Your task to perform on an android device: change the clock display to analog Image 0: 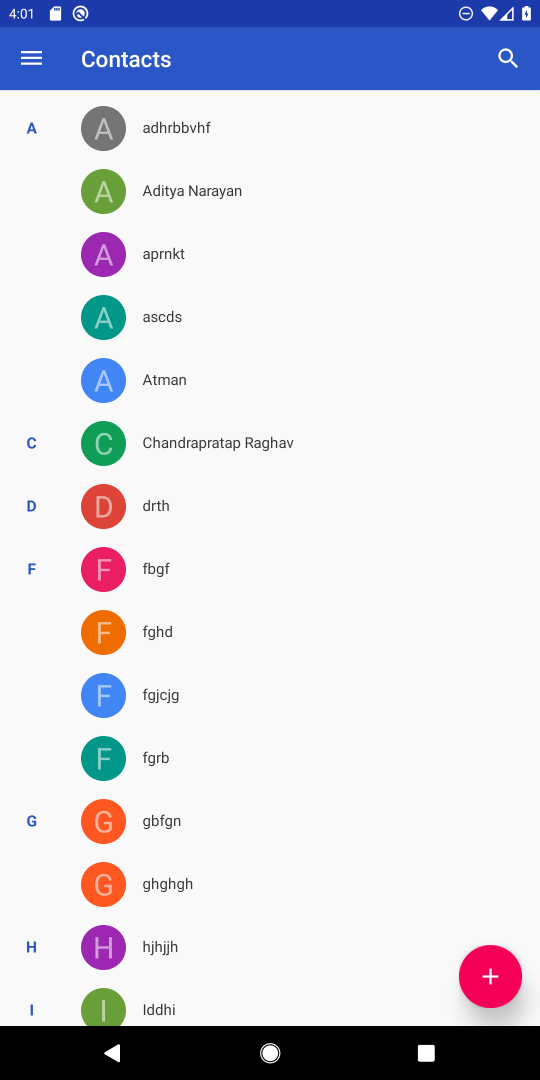
Step 0: press home button
Your task to perform on an android device: change the clock display to analog Image 1: 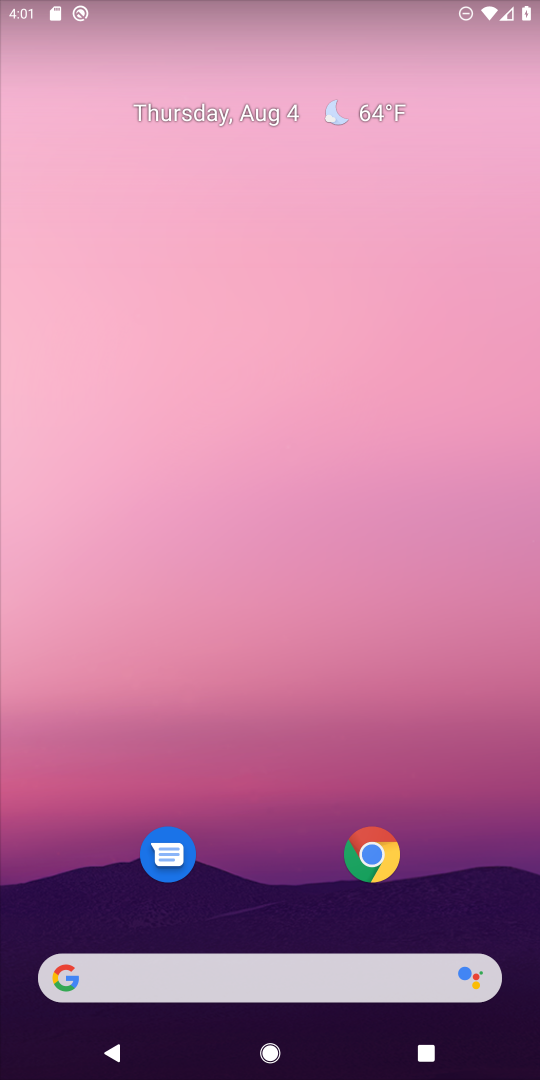
Step 1: drag from (264, 760) to (220, 180)
Your task to perform on an android device: change the clock display to analog Image 2: 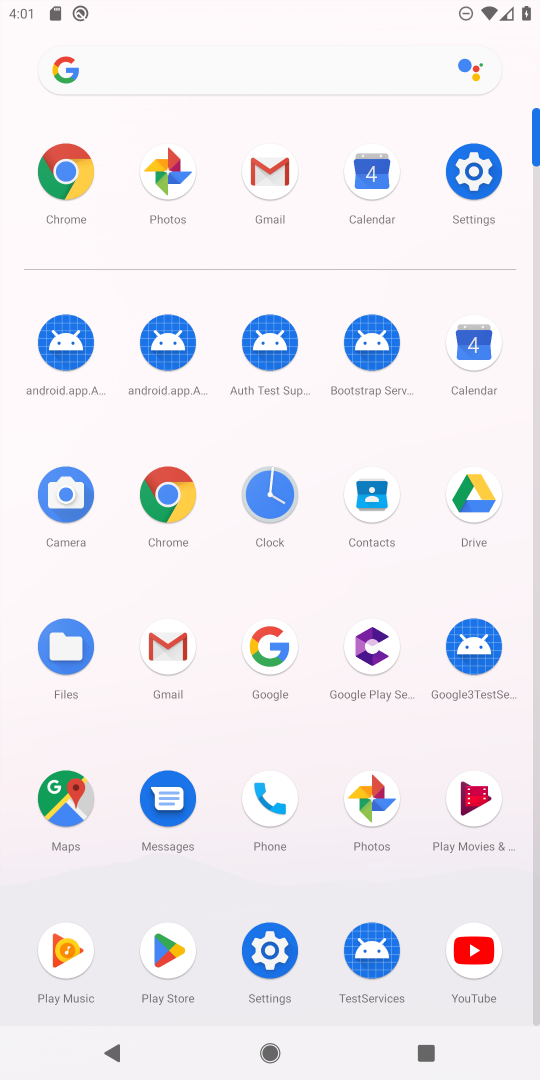
Step 2: click (474, 172)
Your task to perform on an android device: change the clock display to analog Image 3: 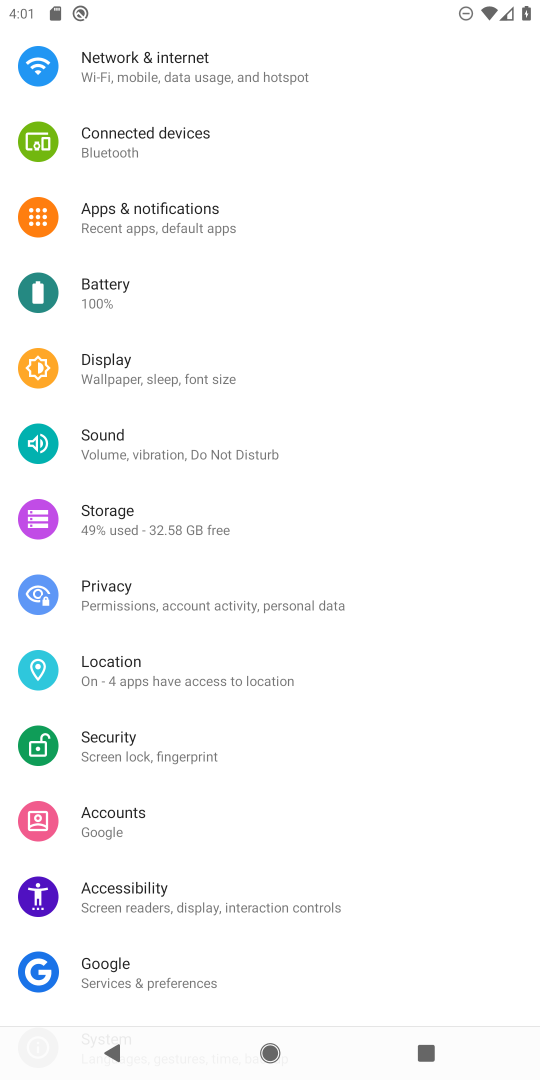
Step 3: press home button
Your task to perform on an android device: change the clock display to analog Image 4: 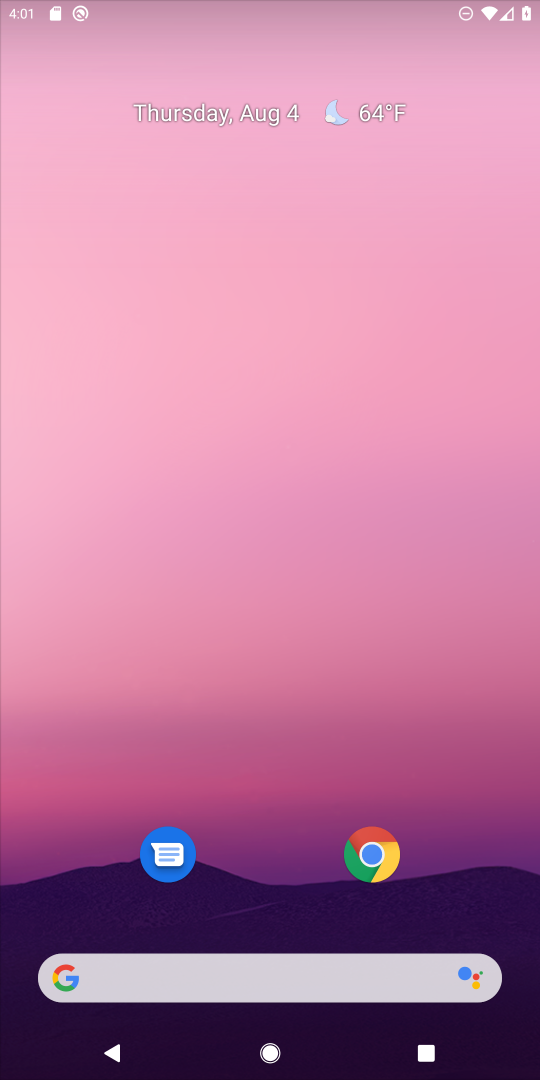
Step 4: drag from (237, 709) to (197, 93)
Your task to perform on an android device: change the clock display to analog Image 5: 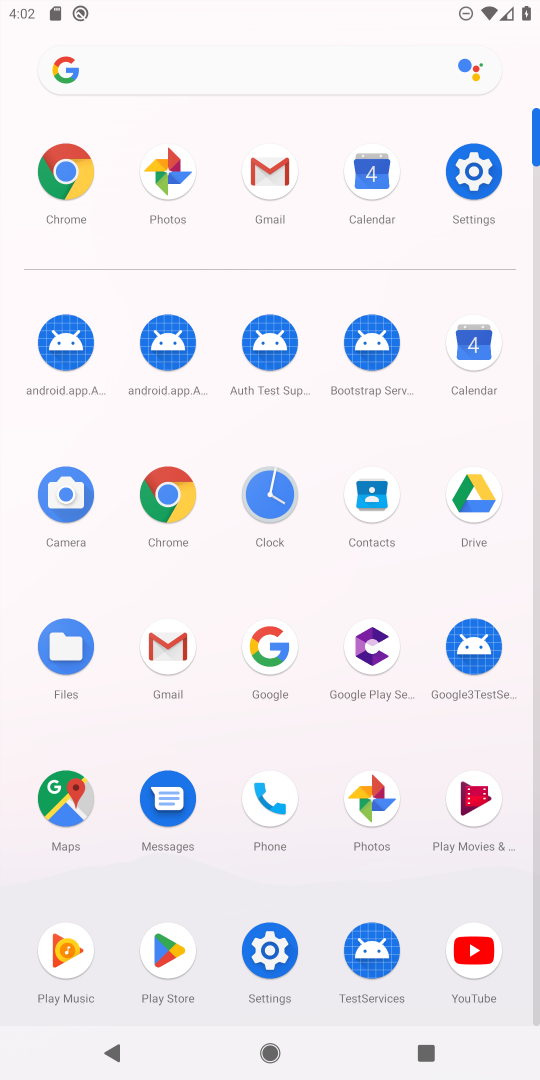
Step 5: click (255, 509)
Your task to perform on an android device: change the clock display to analog Image 6: 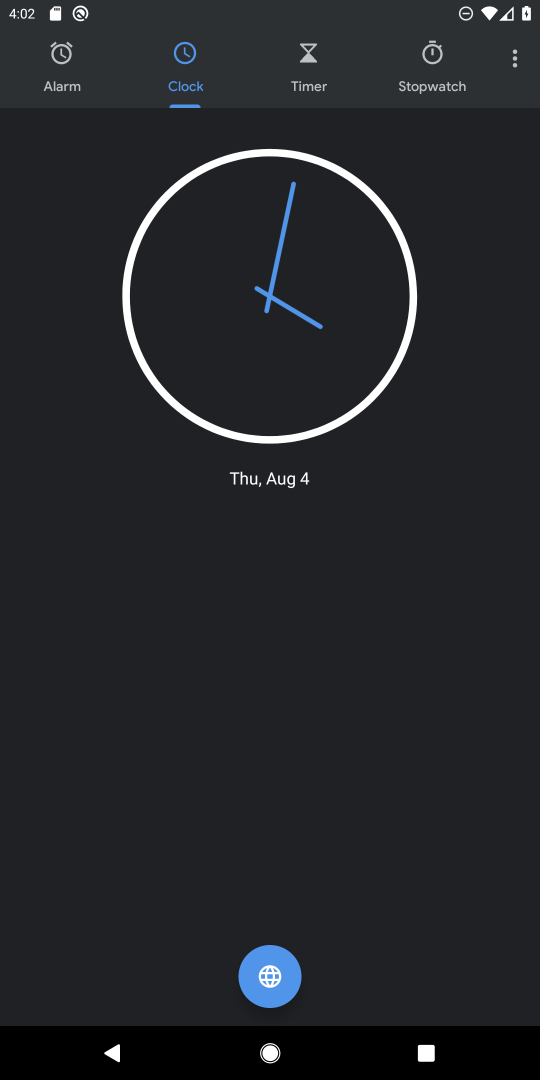
Step 6: click (513, 59)
Your task to perform on an android device: change the clock display to analog Image 7: 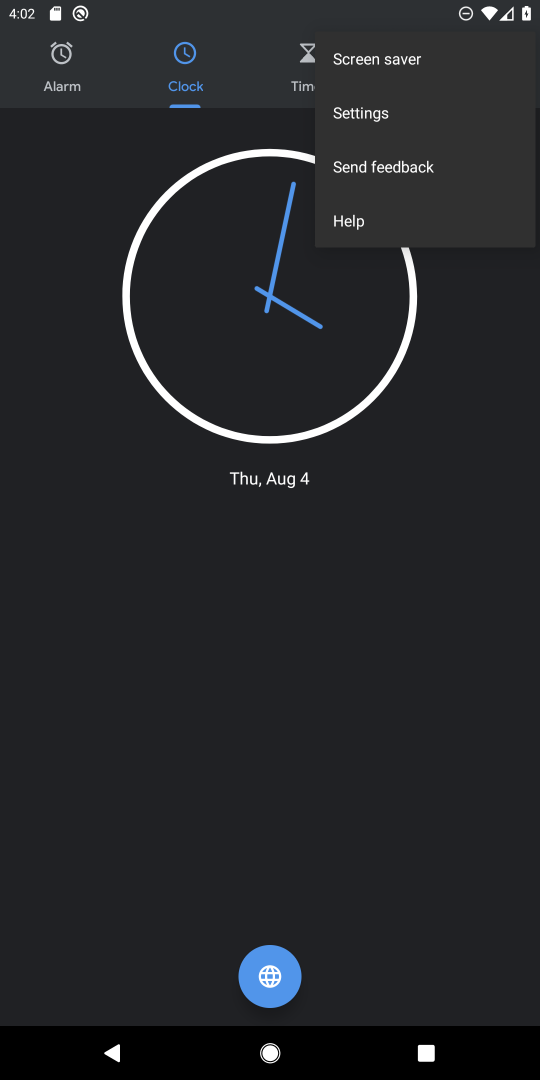
Step 7: click (377, 115)
Your task to perform on an android device: change the clock display to analog Image 8: 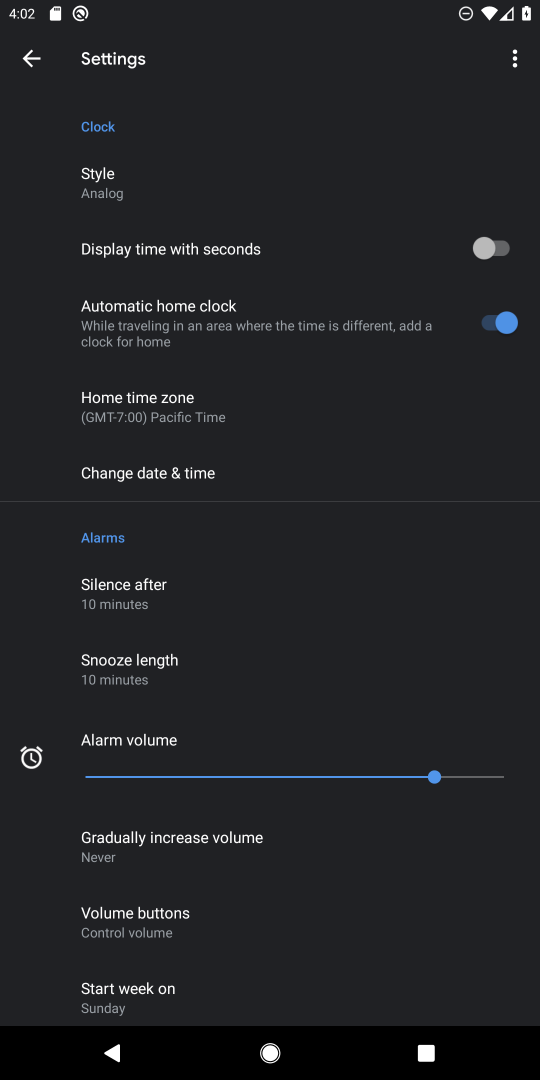
Step 8: click (109, 180)
Your task to perform on an android device: change the clock display to analog Image 9: 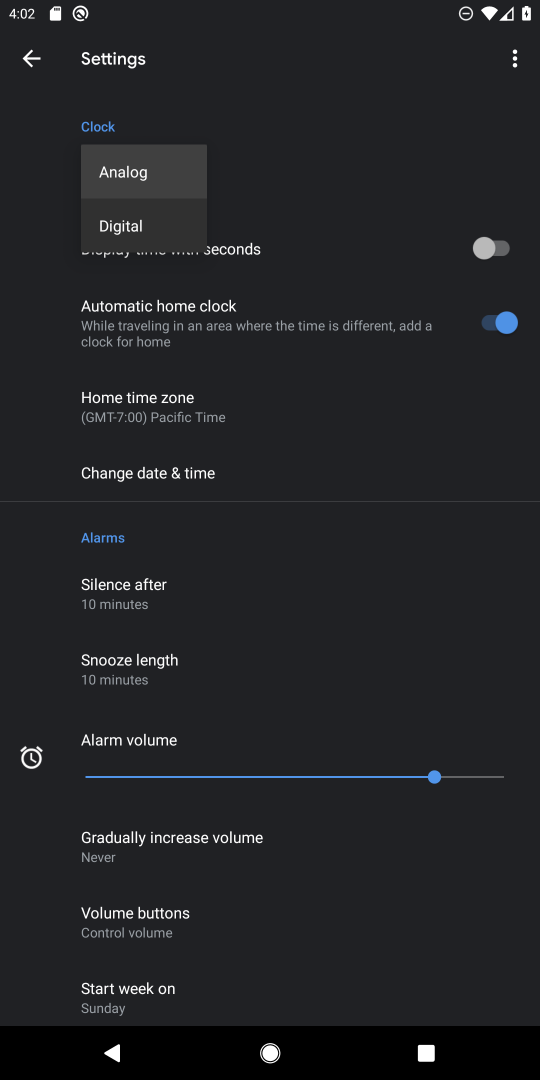
Step 9: click (113, 225)
Your task to perform on an android device: change the clock display to analog Image 10: 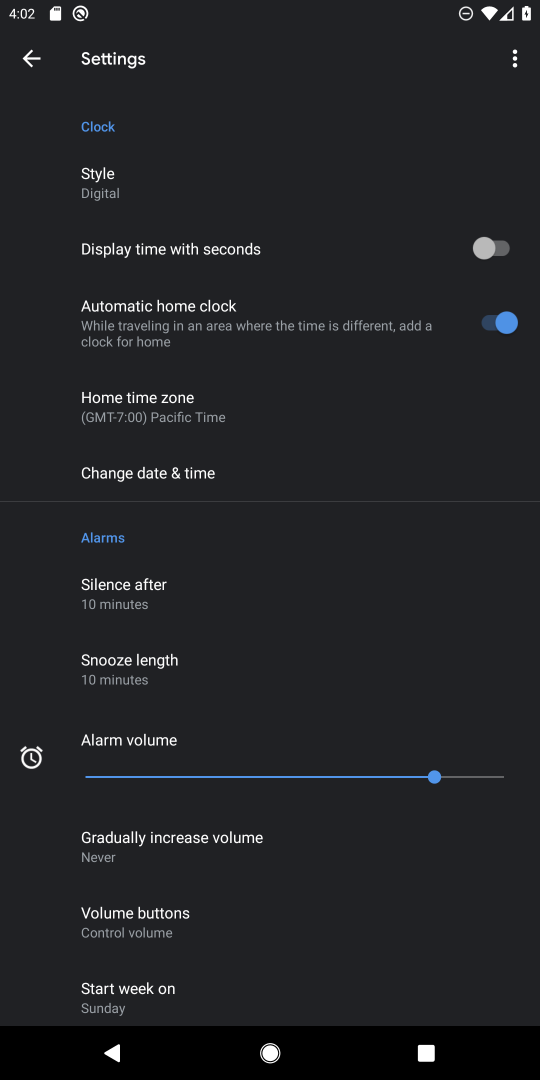
Step 10: task complete